Your task to perform on an android device: Open the map Image 0: 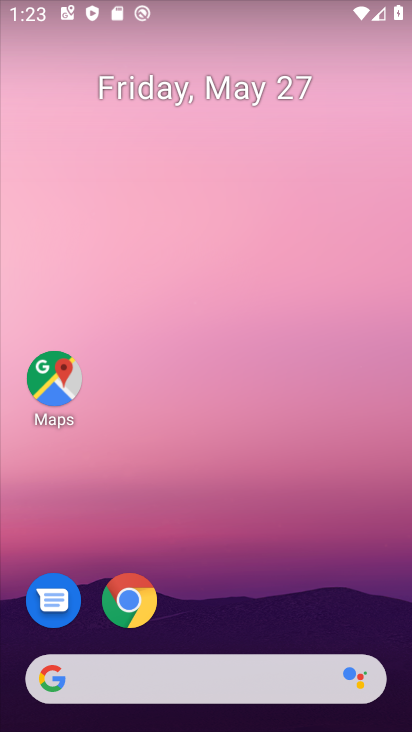
Step 0: drag from (216, 718) to (220, 126)
Your task to perform on an android device: Open the map Image 1: 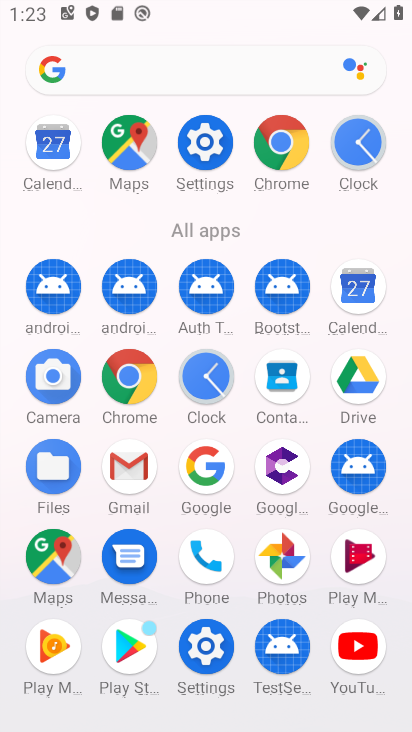
Step 1: click (50, 555)
Your task to perform on an android device: Open the map Image 2: 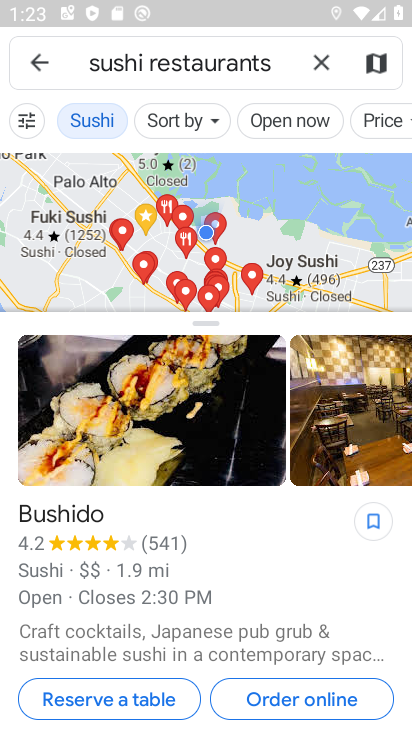
Step 2: task complete